Your task to perform on an android device: change notifications settings Image 0: 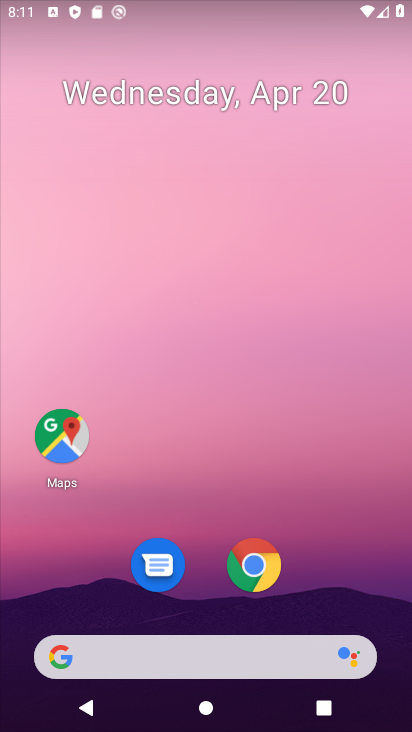
Step 0: drag from (355, 518) to (297, 62)
Your task to perform on an android device: change notifications settings Image 1: 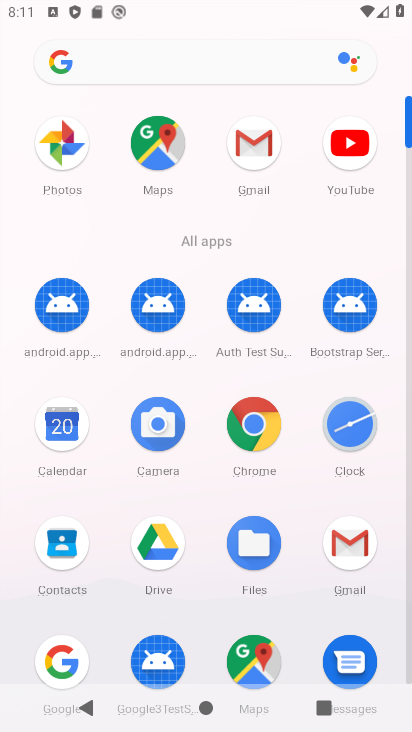
Step 1: drag from (399, 588) to (393, 210)
Your task to perform on an android device: change notifications settings Image 2: 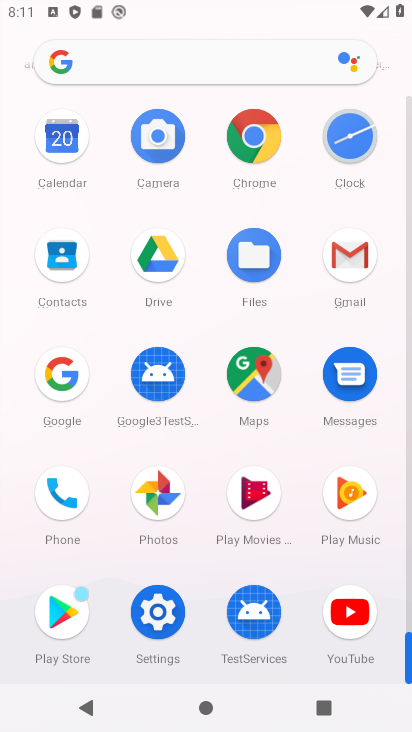
Step 2: click (150, 614)
Your task to perform on an android device: change notifications settings Image 3: 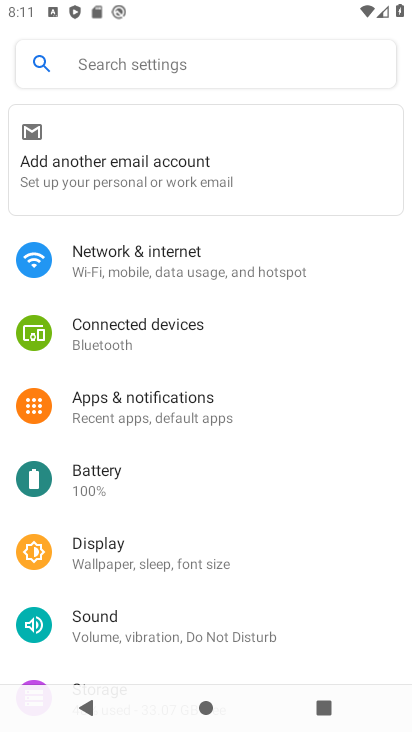
Step 3: click (188, 407)
Your task to perform on an android device: change notifications settings Image 4: 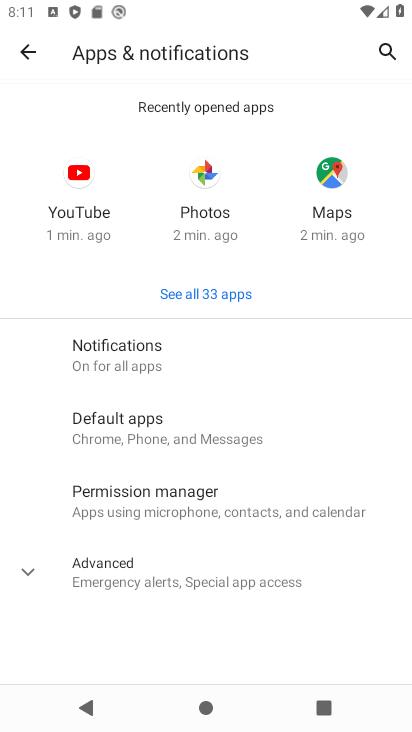
Step 4: drag from (321, 347) to (313, 571)
Your task to perform on an android device: change notifications settings Image 5: 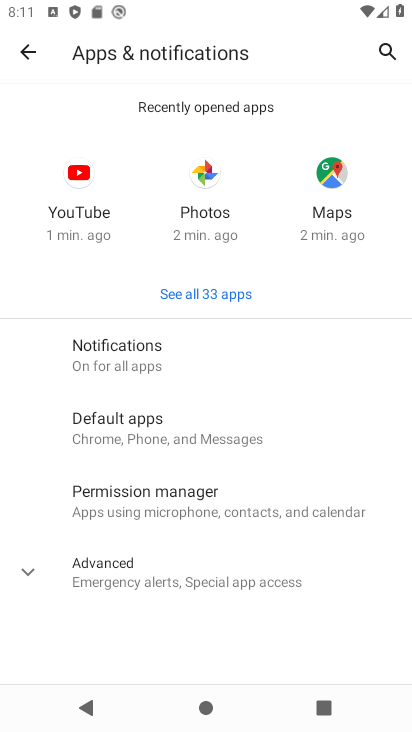
Step 5: click (96, 343)
Your task to perform on an android device: change notifications settings Image 6: 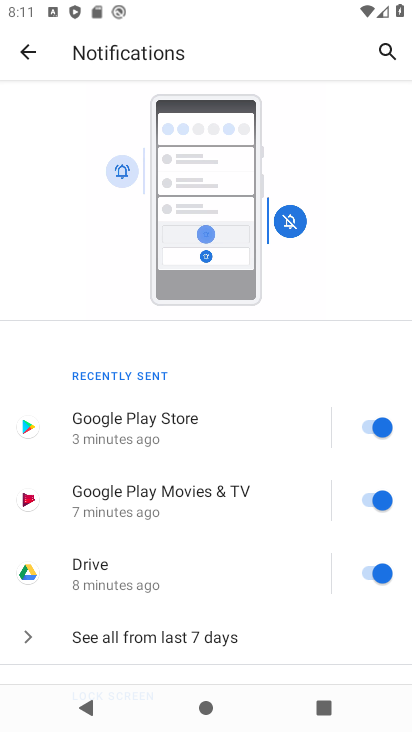
Step 6: drag from (152, 572) to (127, 272)
Your task to perform on an android device: change notifications settings Image 7: 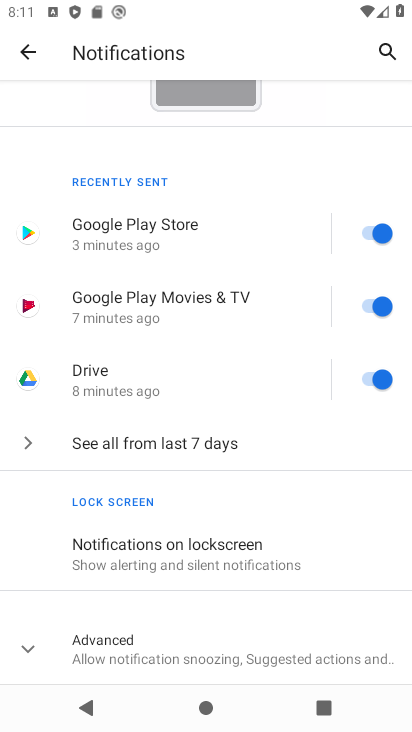
Step 7: click (171, 649)
Your task to perform on an android device: change notifications settings Image 8: 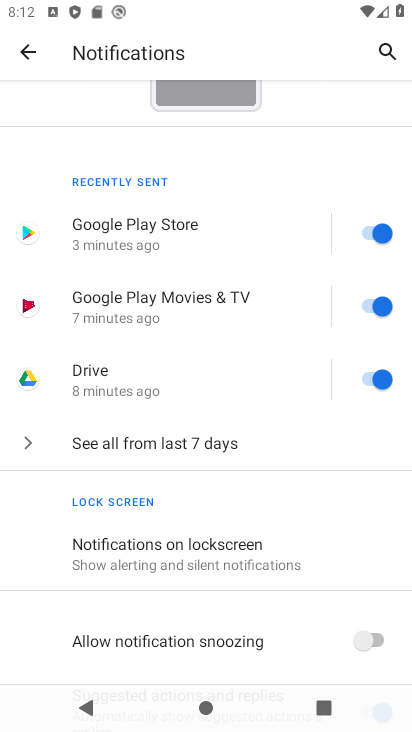
Step 8: drag from (173, 618) to (208, 350)
Your task to perform on an android device: change notifications settings Image 9: 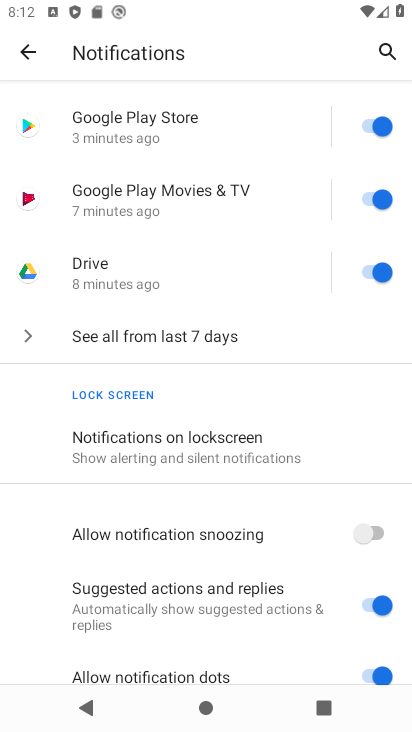
Step 9: click (367, 273)
Your task to perform on an android device: change notifications settings Image 10: 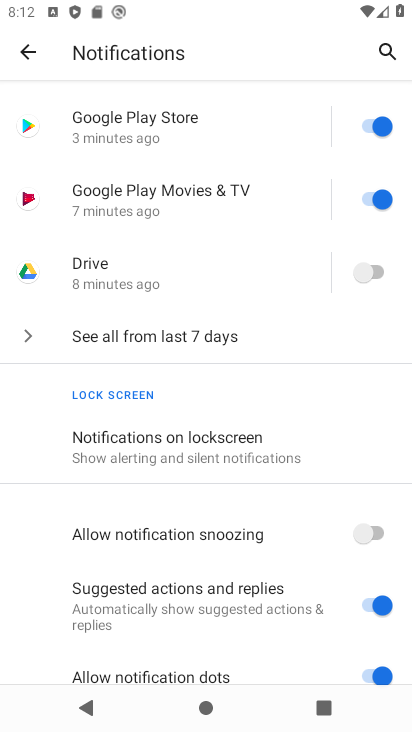
Step 10: task complete